Your task to perform on an android device: Go to CNN.com Image 0: 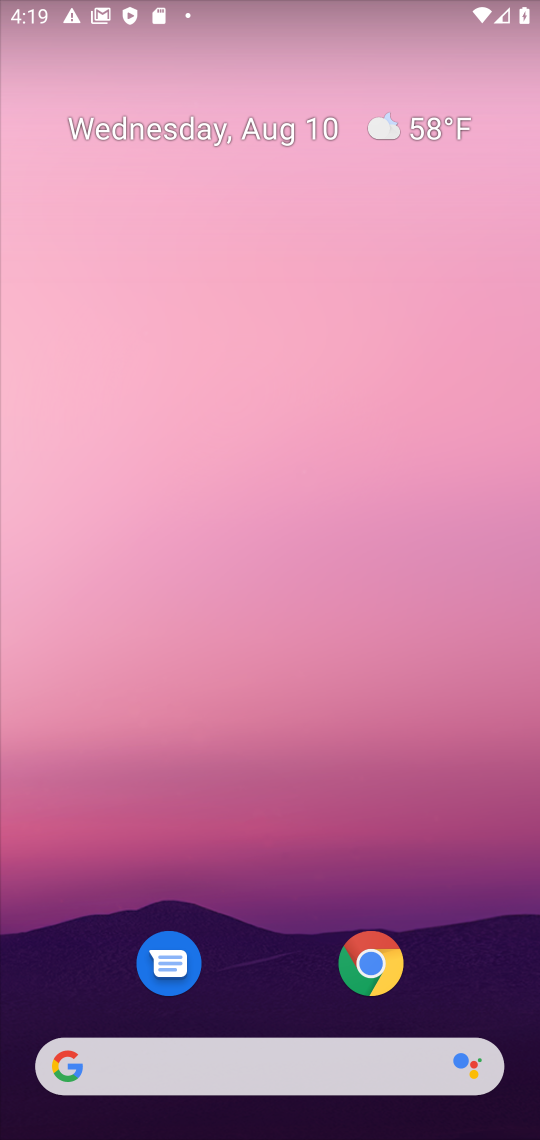
Step 0: click (368, 940)
Your task to perform on an android device: Go to CNN.com Image 1: 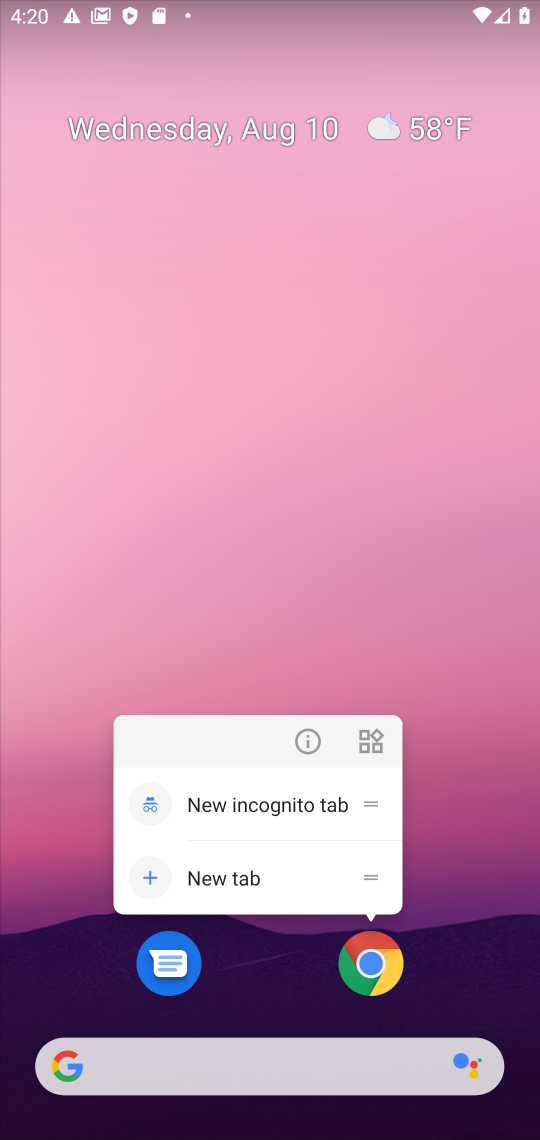
Step 1: click (369, 952)
Your task to perform on an android device: Go to CNN.com Image 2: 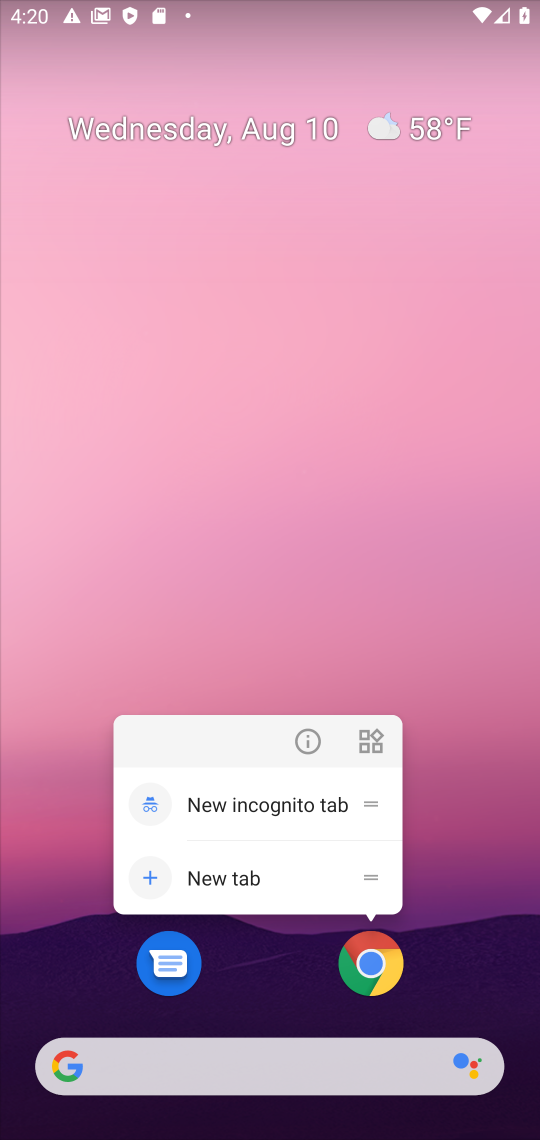
Step 2: click (369, 952)
Your task to perform on an android device: Go to CNN.com Image 3: 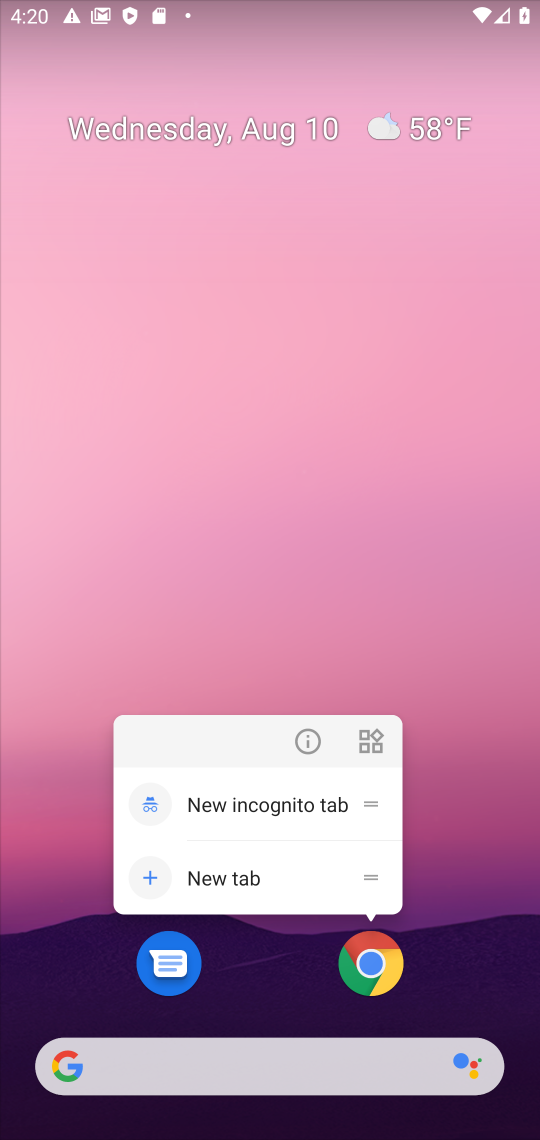
Step 3: click (369, 952)
Your task to perform on an android device: Go to CNN.com Image 4: 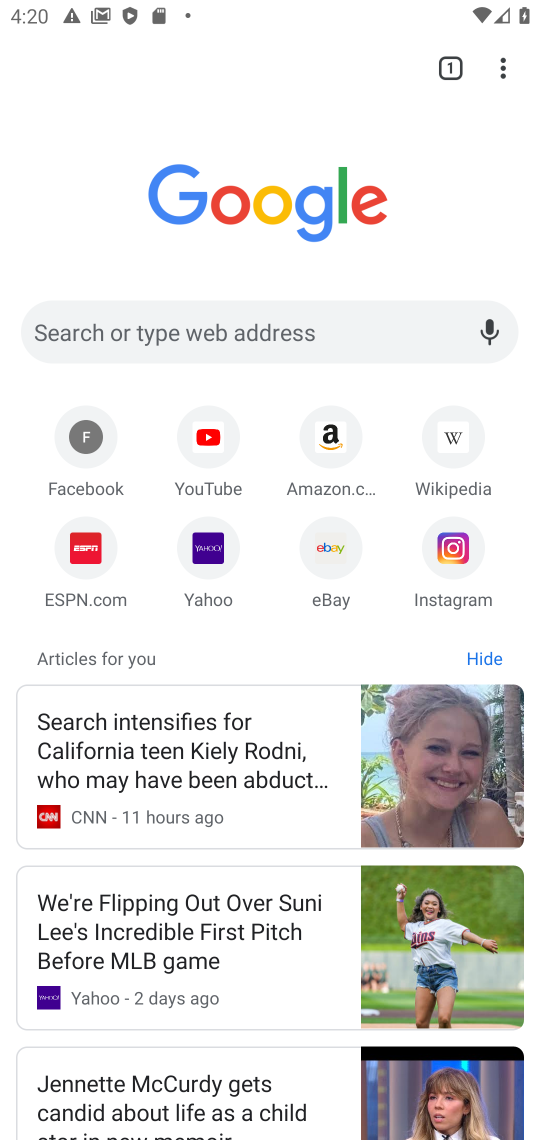
Step 4: click (280, 315)
Your task to perform on an android device: Go to CNN.com Image 5: 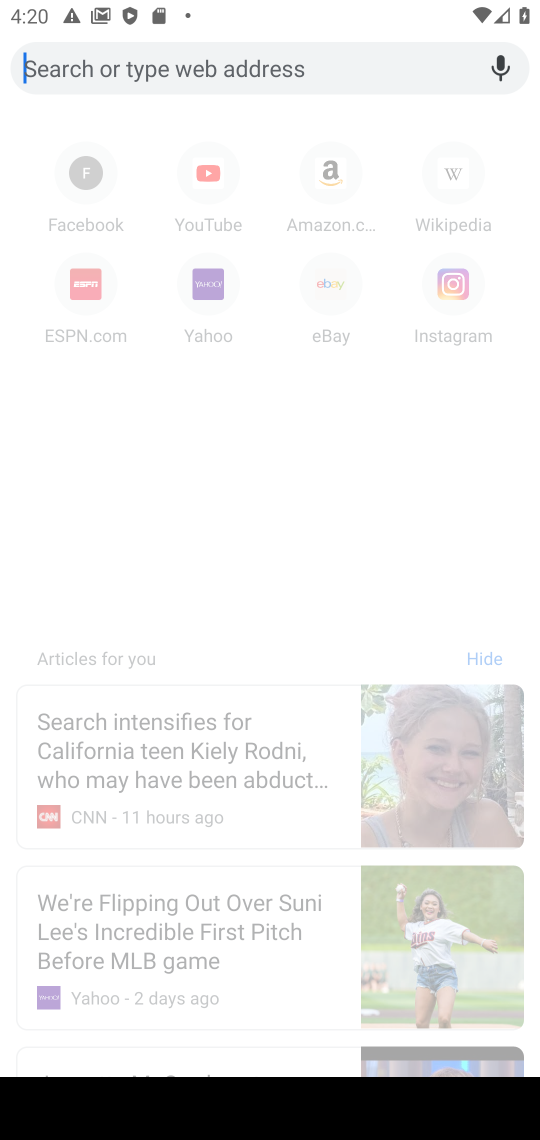
Step 5: type "CNN.com"
Your task to perform on an android device: Go to CNN.com Image 6: 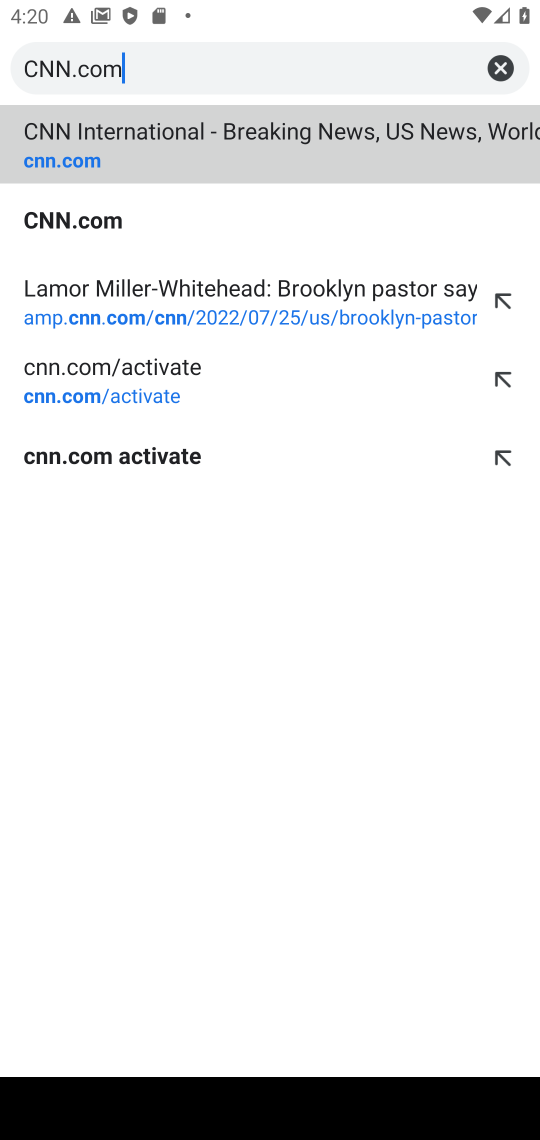
Step 6: click (55, 152)
Your task to perform on an android device: Go to CNN.com Image 7: 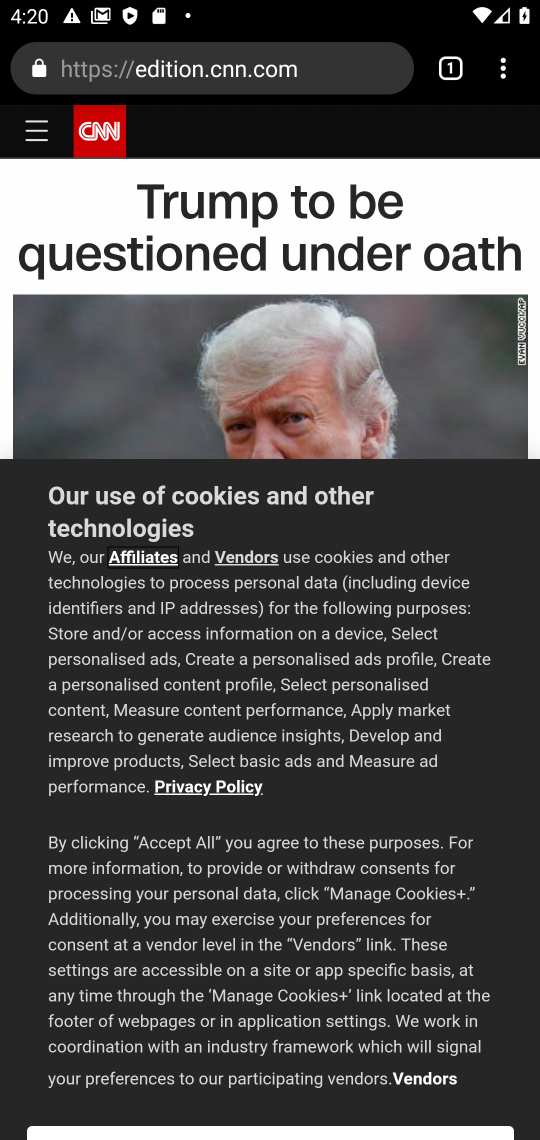
Step 7: task complete